Your task to perform on an android device: turn off smart reply in the gmail app Image 0: 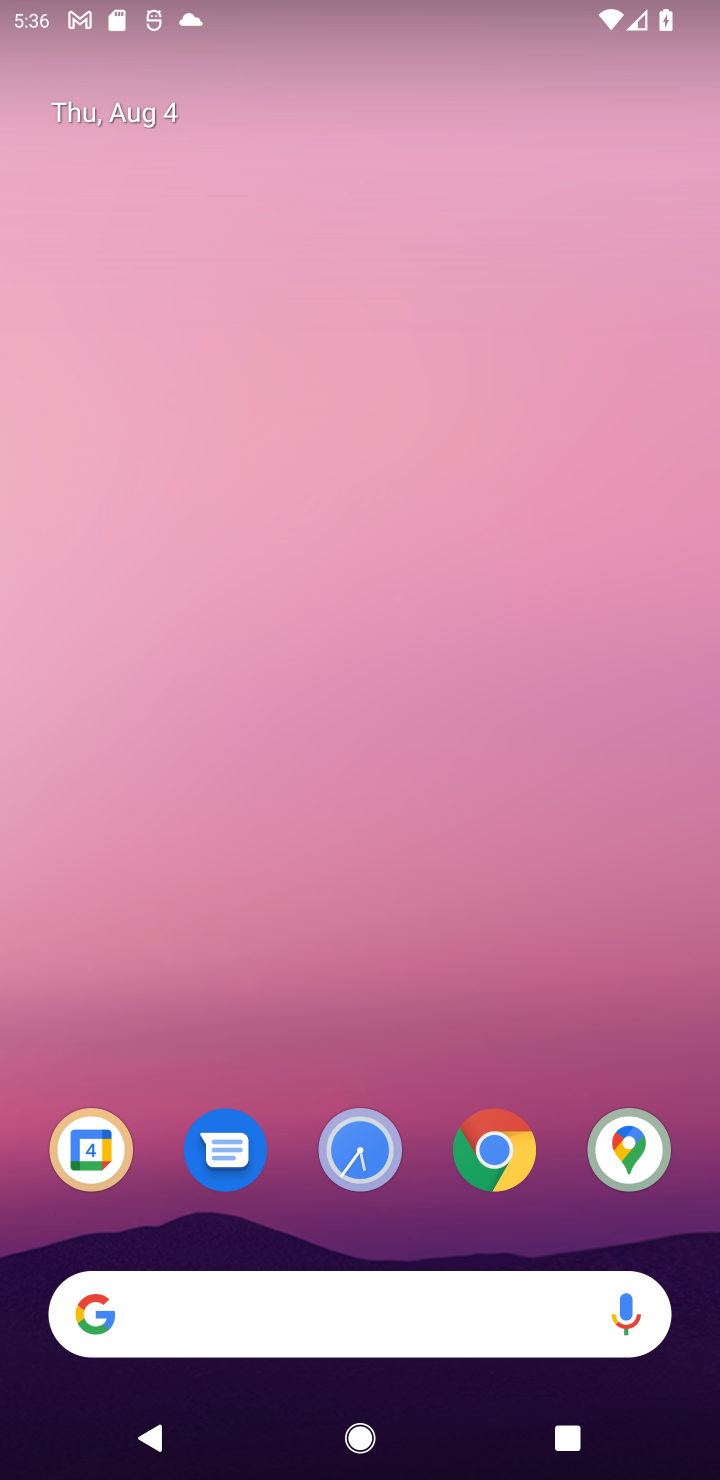
Step 0: drag from (304, 865) to (403, 258)
Your task to perform on an android device: turn off smart reply in the gmail app Image 1: 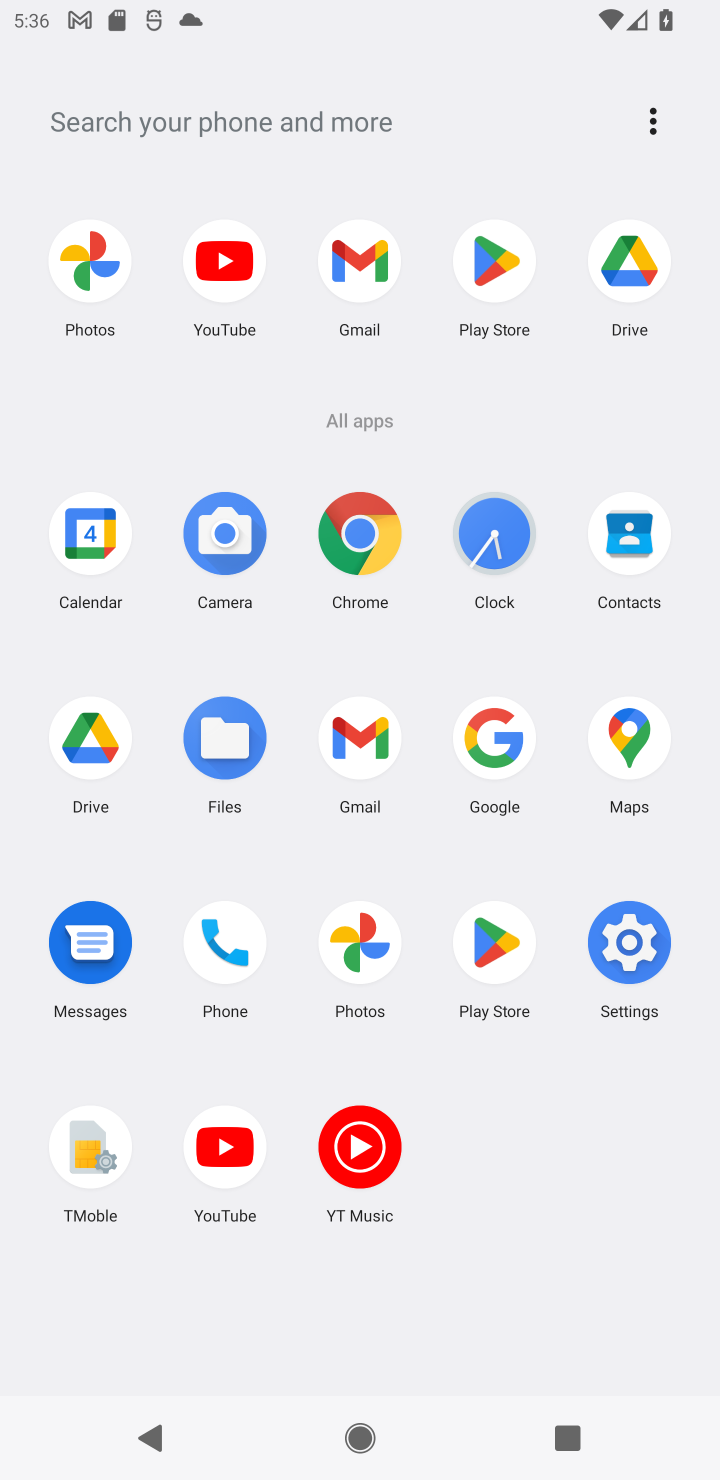
Step 1: click (399, 739)
Your task to perform on an android device: turn off smart reply in the gmail app Image 2: 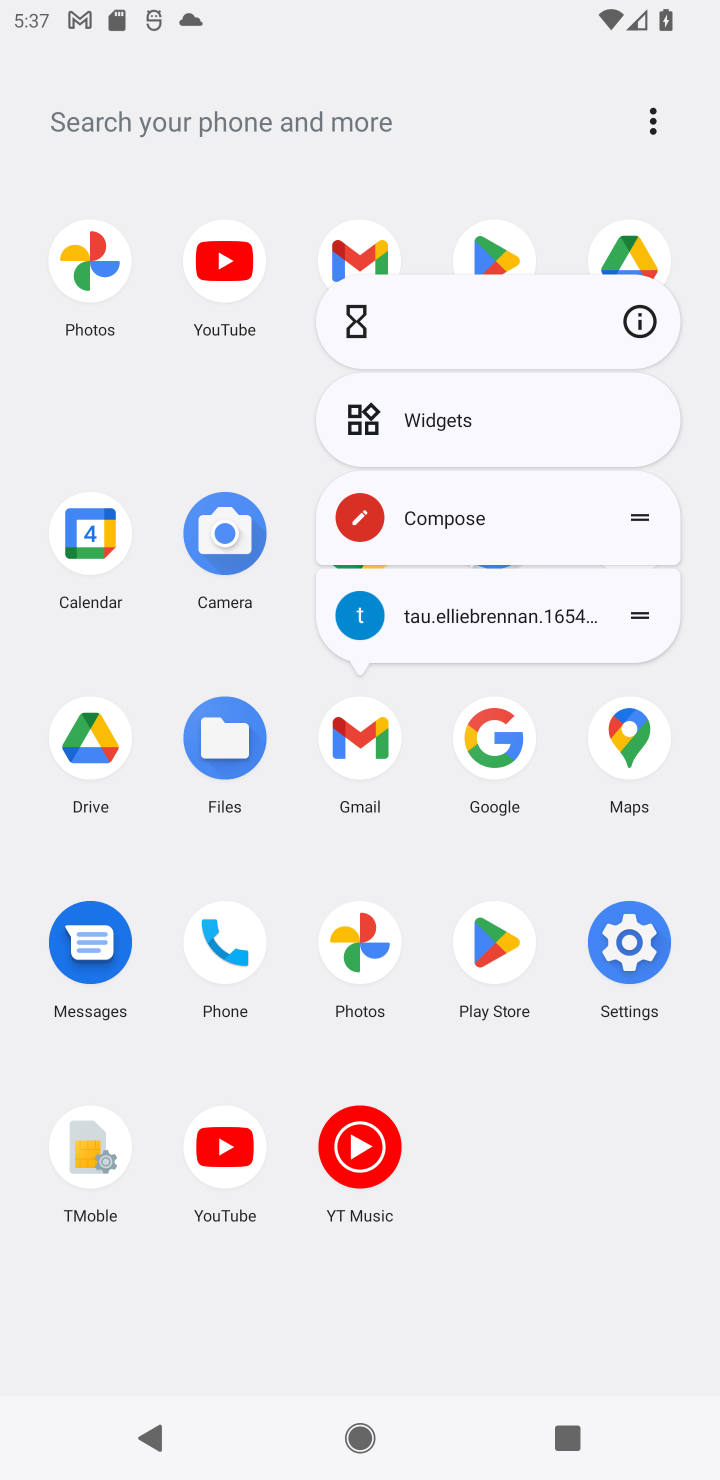
Step 2: click (367, 743)
Your task to perform on an android device: turn off smart reply in the gmail app Image 3: 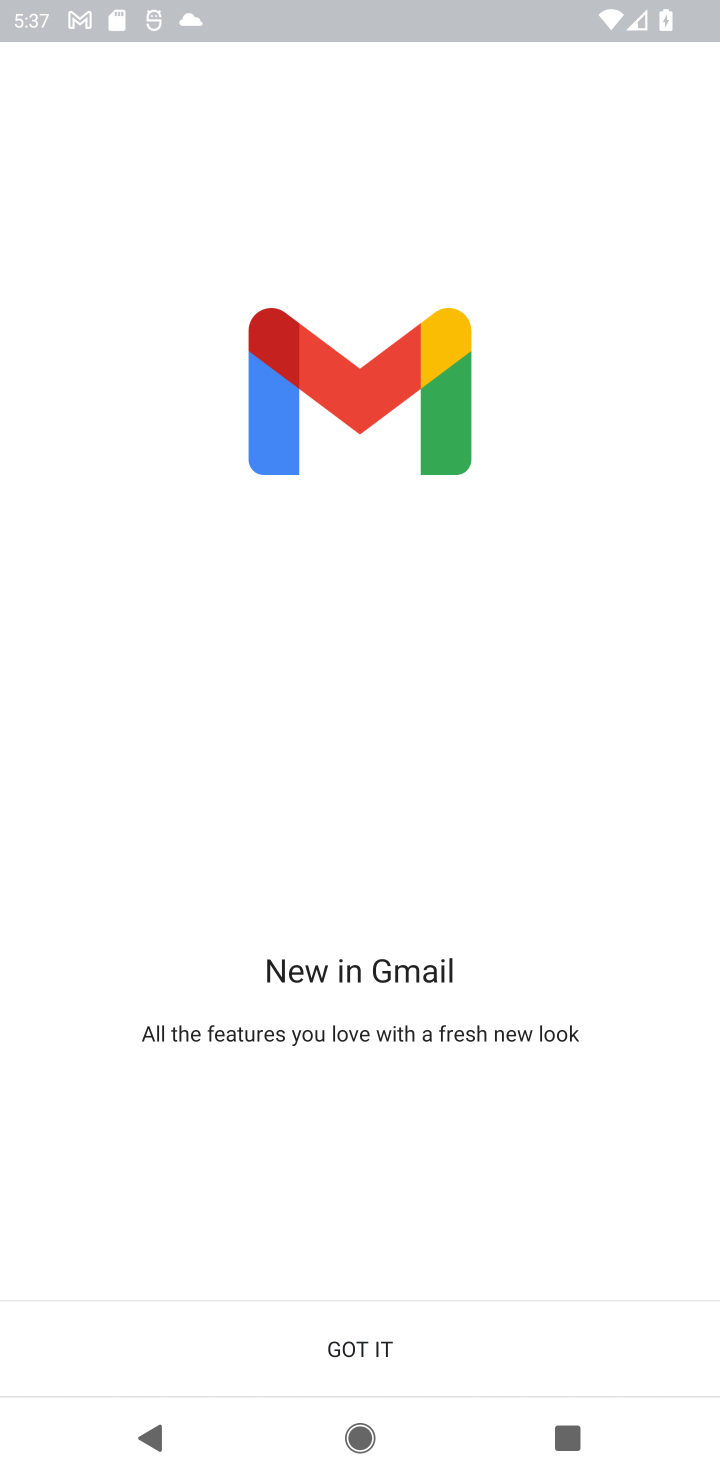
Step 3: click (411, 1330)
Your task to perform on an android device: turn off smart reply in the gmail app Image 4: 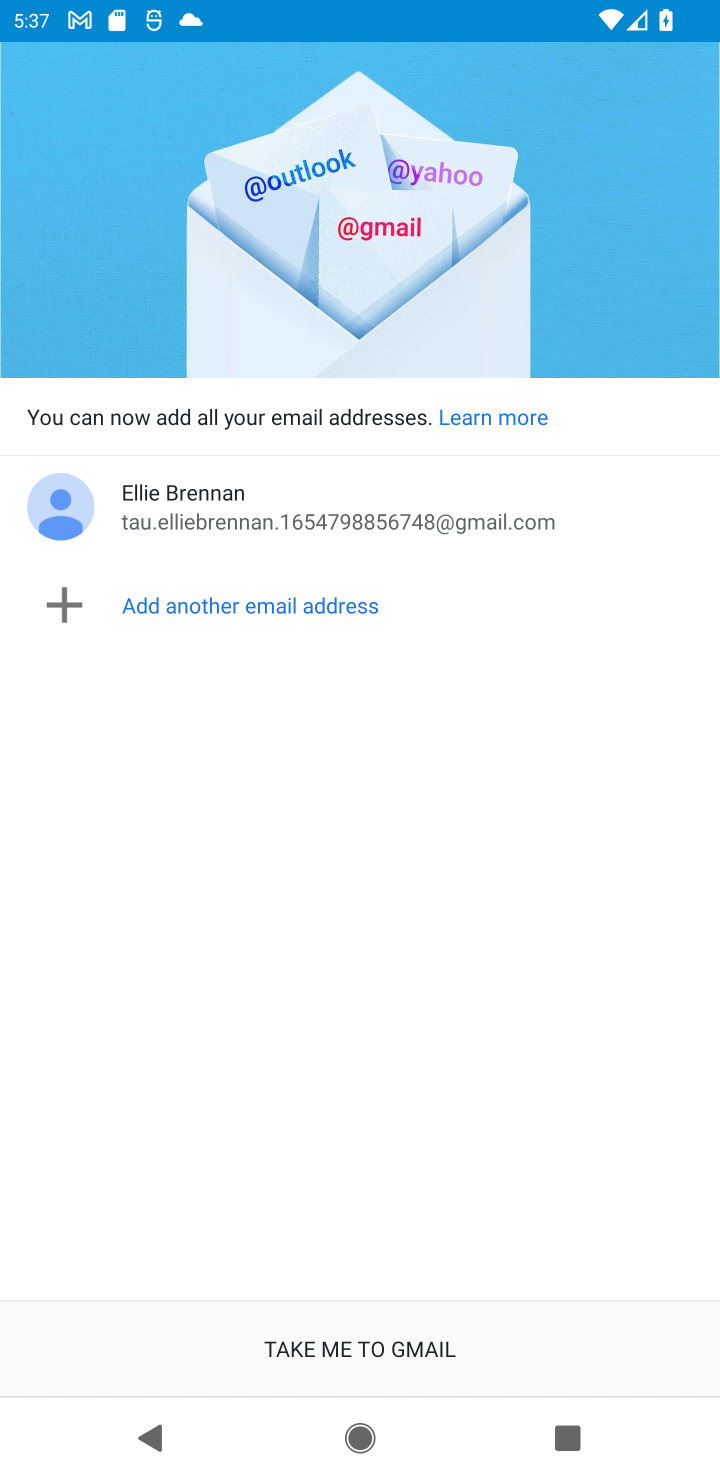
Step 4: click (374, 1351)
Your task to perform on an android device: turn off smart reply in the gmail app Image 5: 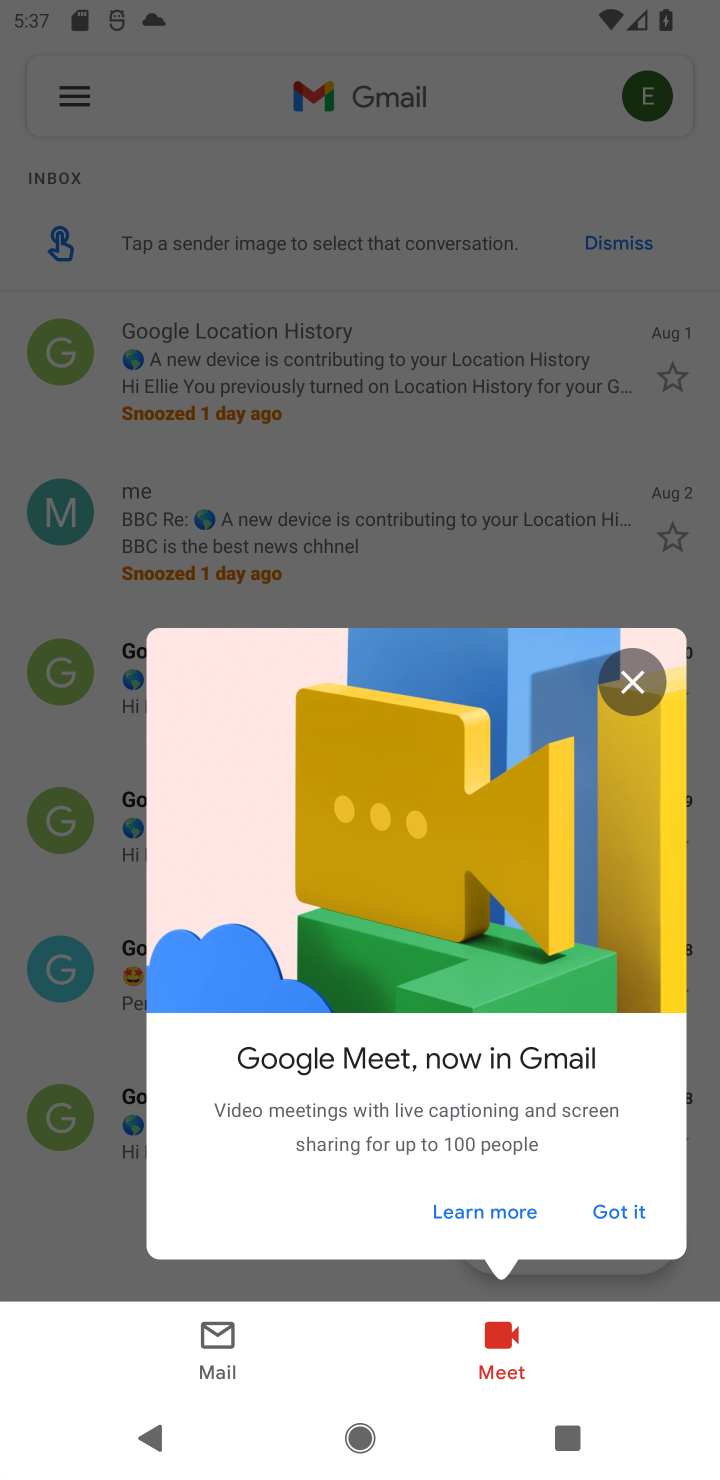
Step 5: click (650, 666)
Your task to perform on an android device: turn off smart reply in the gmail app Image 6: 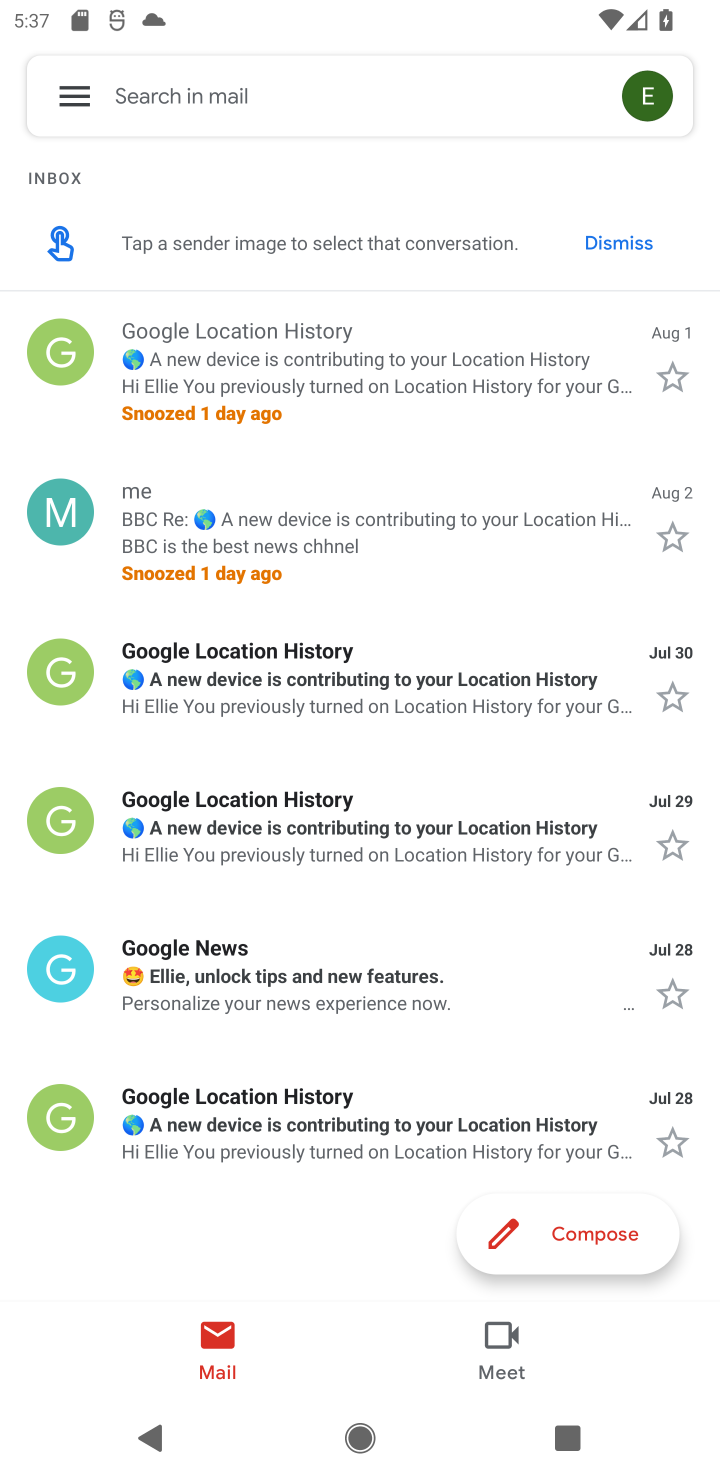
Step 6: click (59, 79)
Your task to perform on an android device: turn off smart reply in the gmail app Image 7: 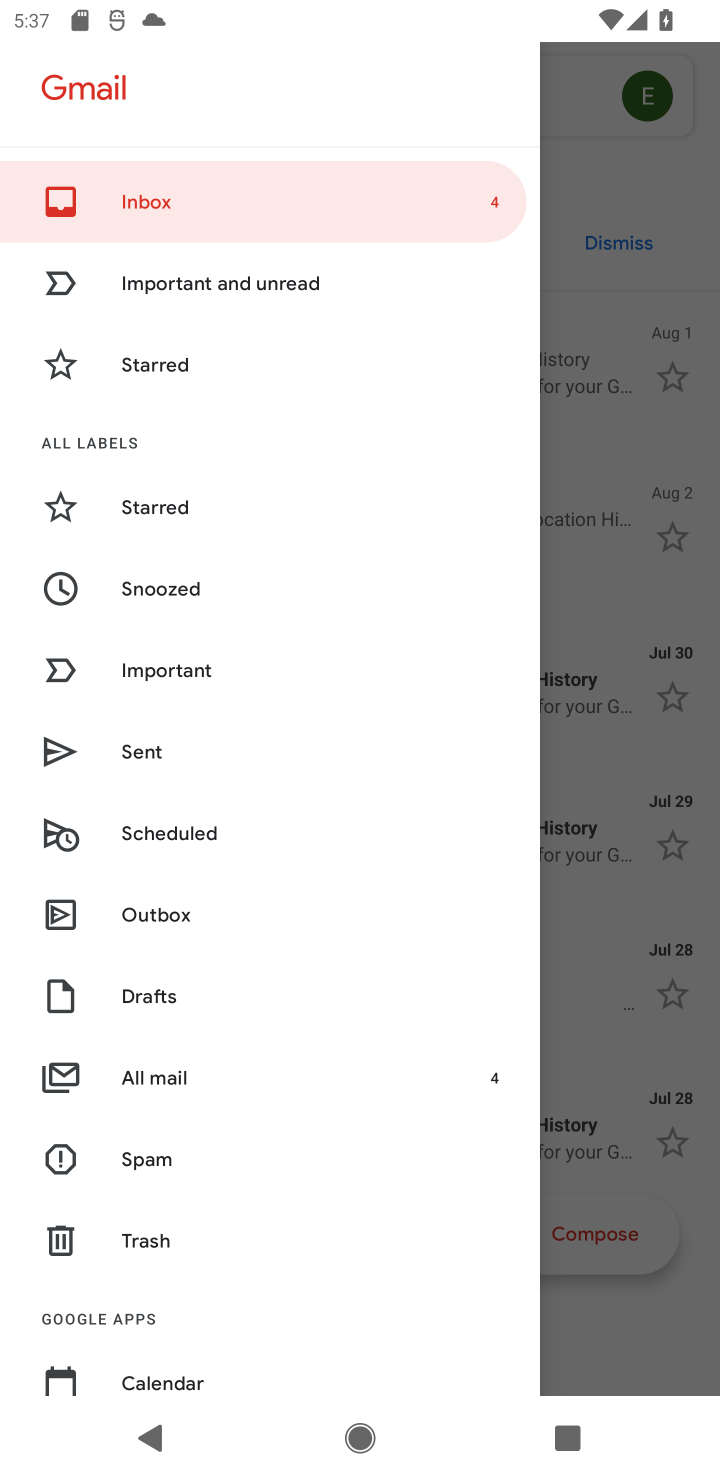
Step 7: drag from (152, 1198) to (203, 305)
Your task to perform on an android device: turn off smart reply in the gmail app Image 8: 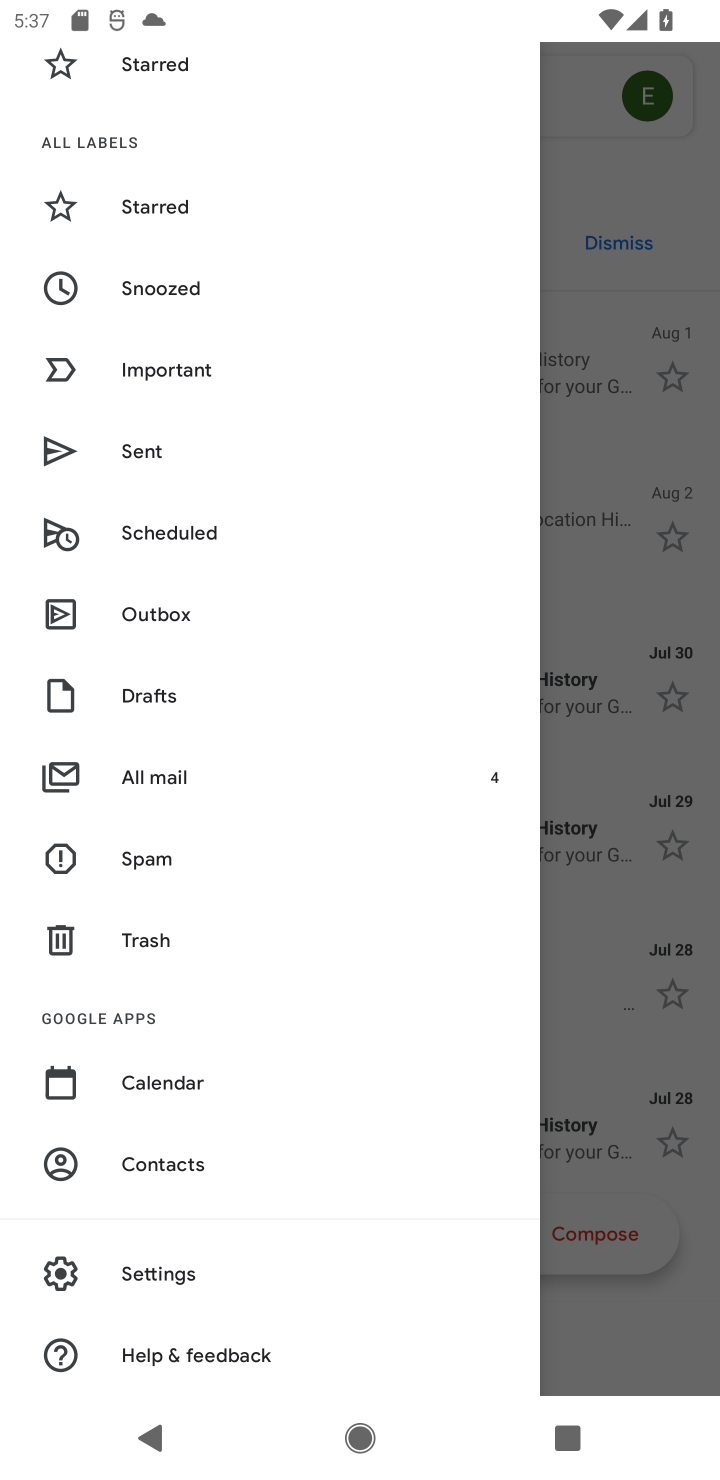
Step 8: click (166, 1273)
Your task to perform on an android device: turn off smart reply in the gmail app Image 9: 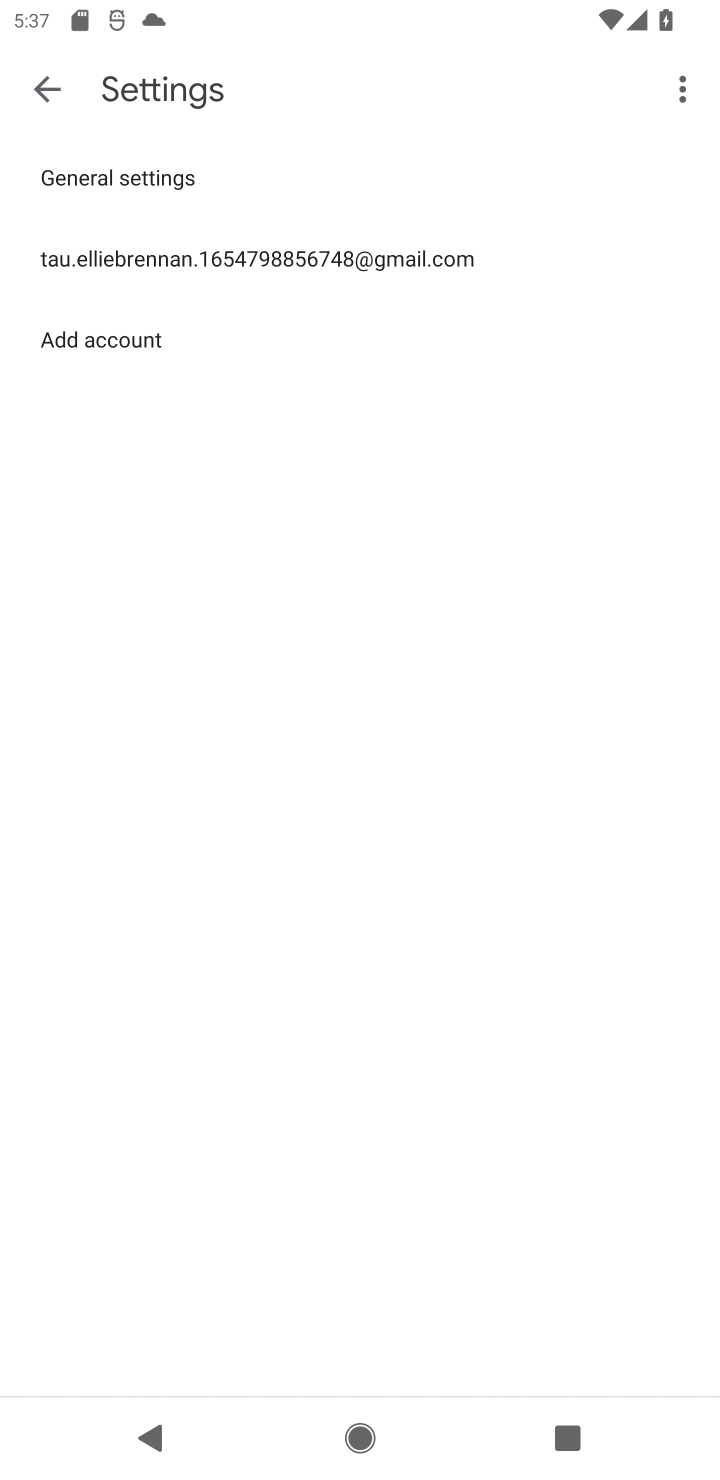
Step 9: click (189, 262)
Your task to perform on an android device: turn off smart reply in the gmail app Image 10: 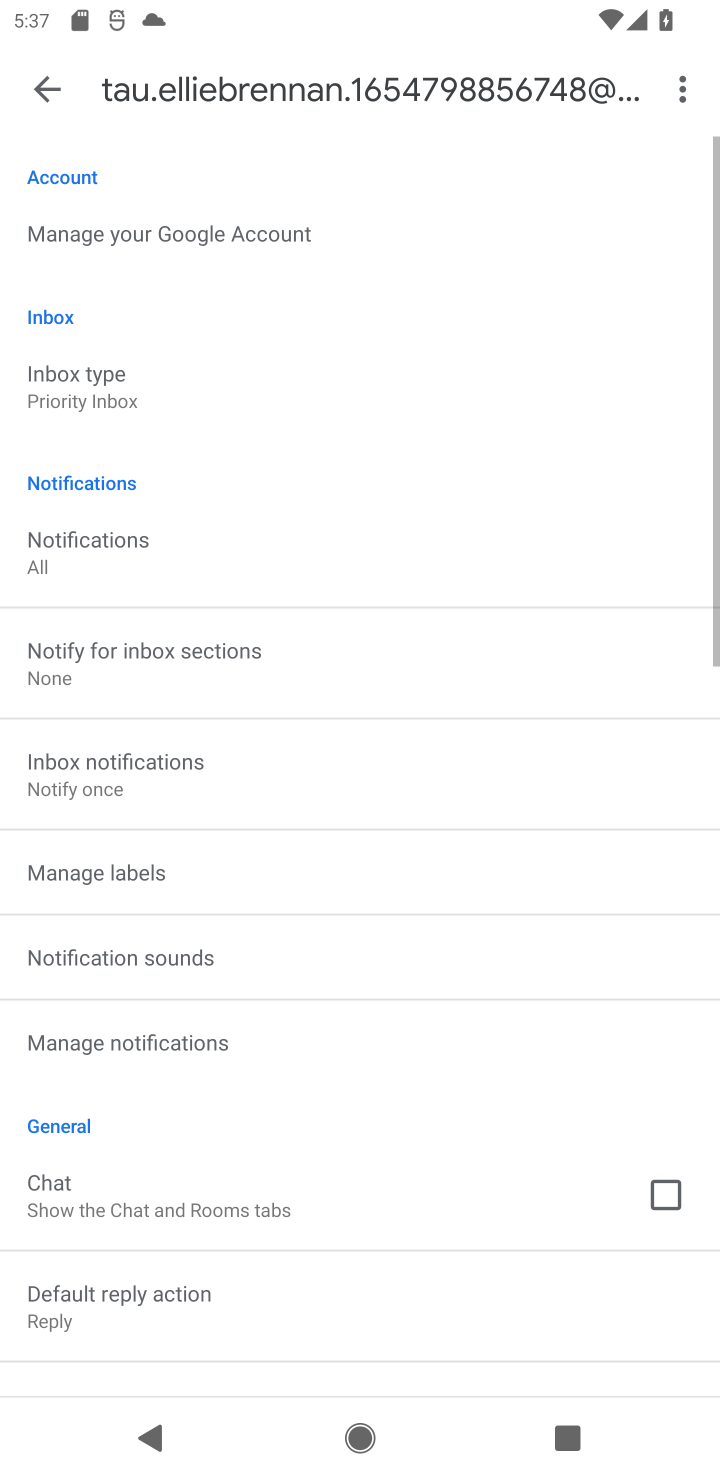
Step 10: drag from (243, 1125) to (274, 550)
Your task to perform on an android device: turn off smart reply in the gmail app Image 11: 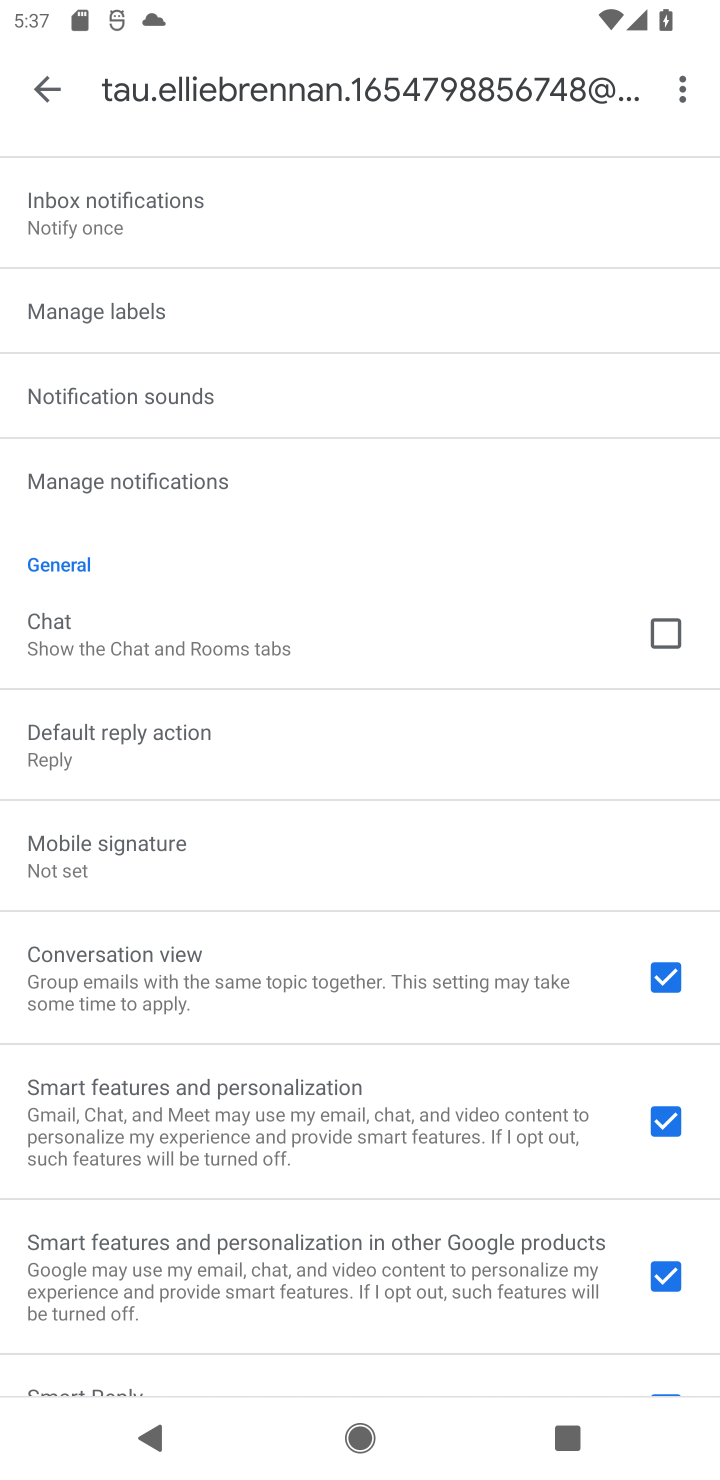
Step 11: drag from (247, 1047) to (355, 543)
Your task to perform on an android device: turn off smart reply in the gmail app Image 12: 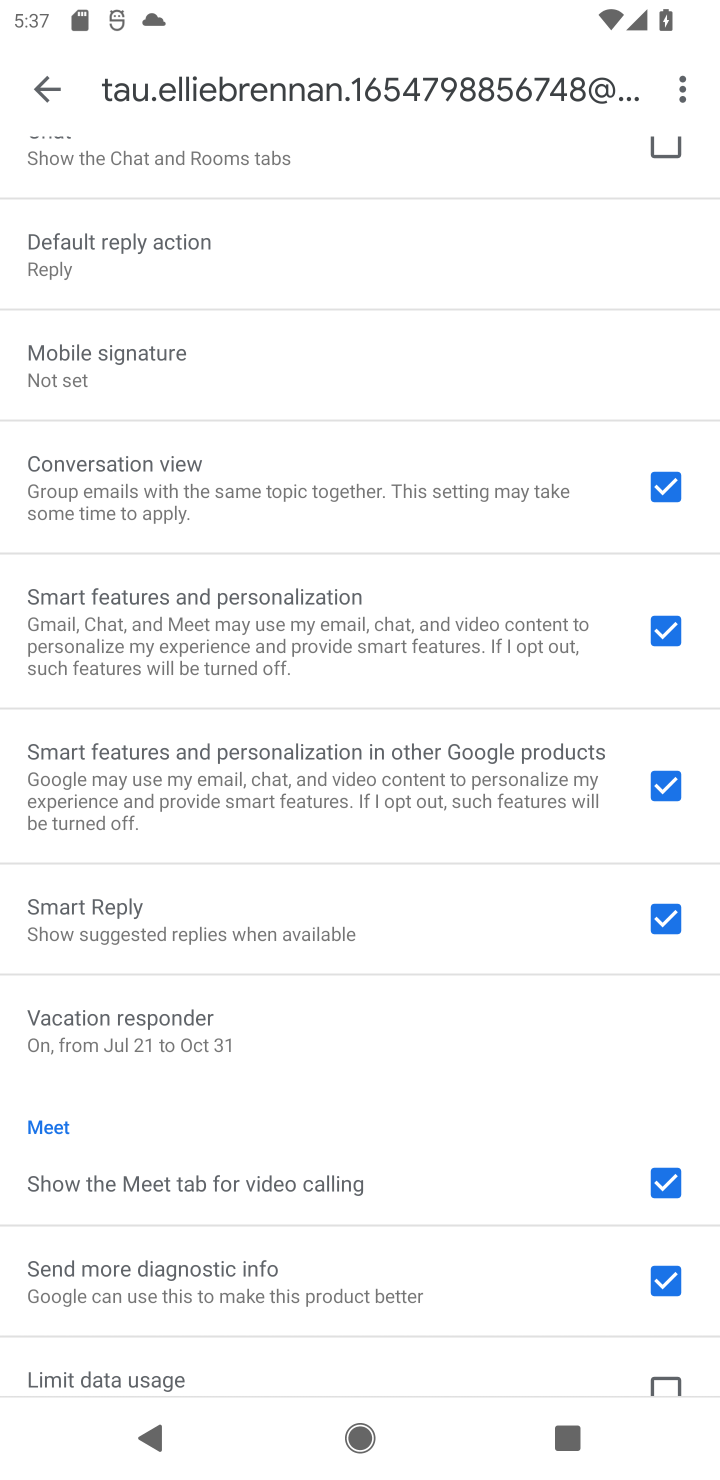
Step 12: click (636, 973)
Your task to perform on an android device: turn off smart reply in the gmail app Image 13: 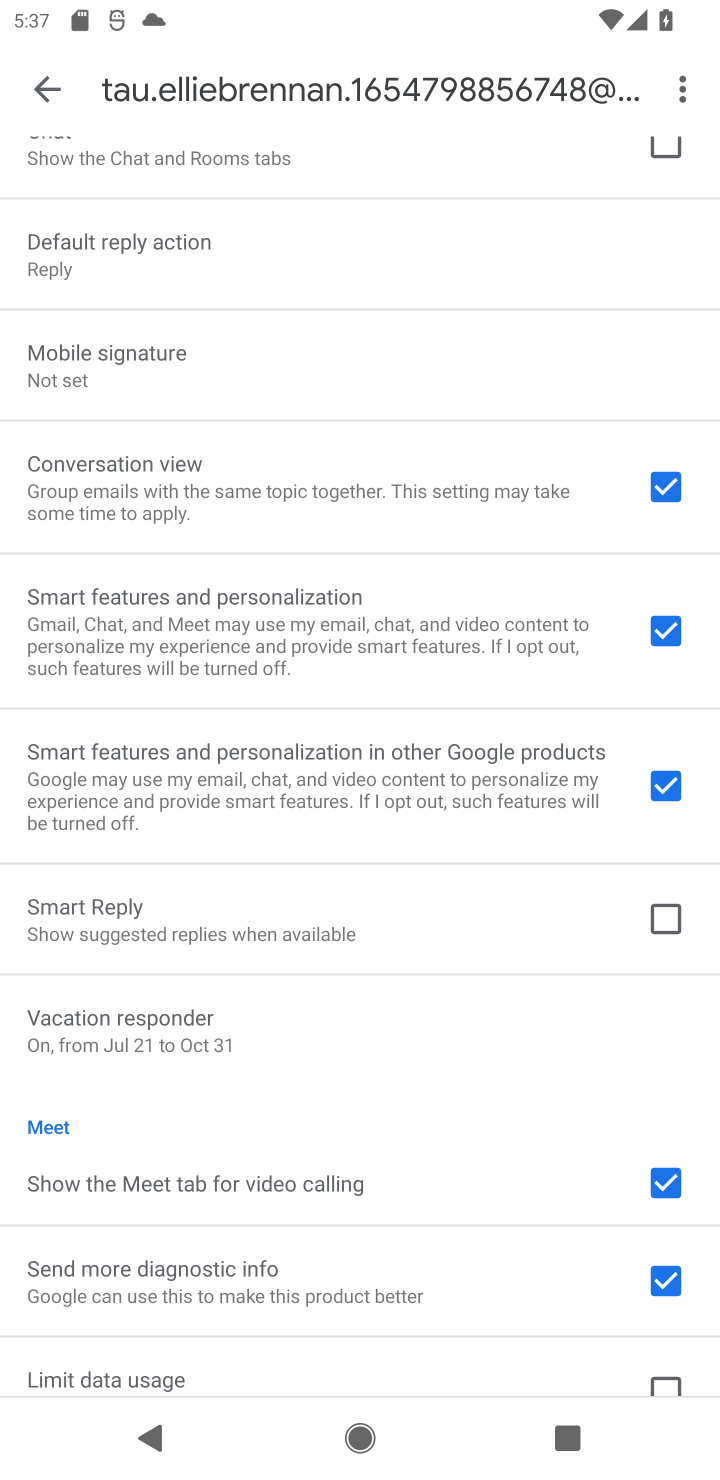
Step 13: task complete